Your task to perform on an android device: Open calendar and show me the first week of next month Image 0: 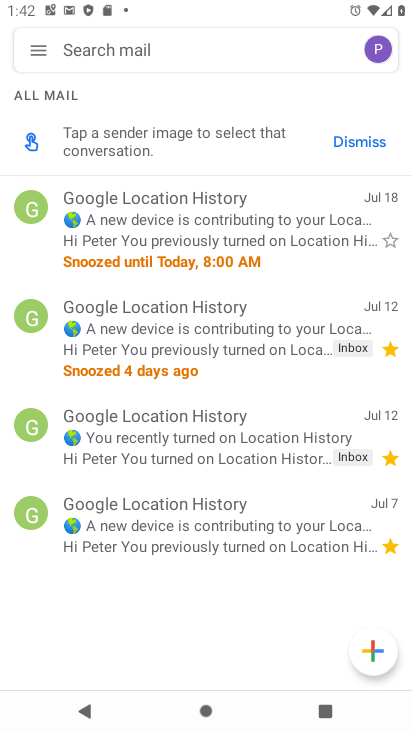
Step 0: press home button
Your task to perform on an android device: Open calendar and show me the first week of next month Image 1: 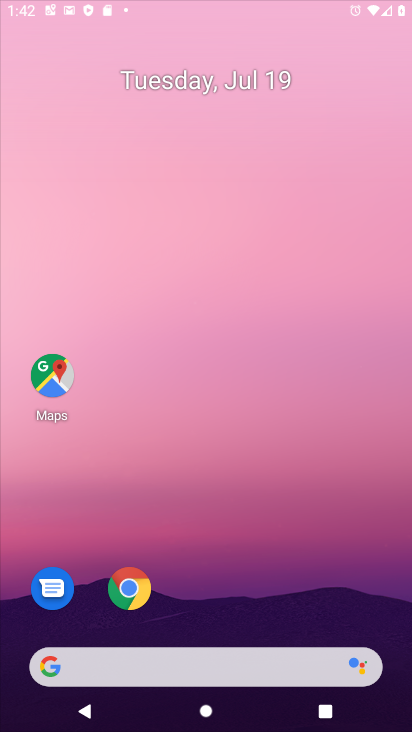
Step 1: drag from (347, 646) to (261, 162)
Your task to perform on an android device: Open calendar and show me the first week of next month Image 2: 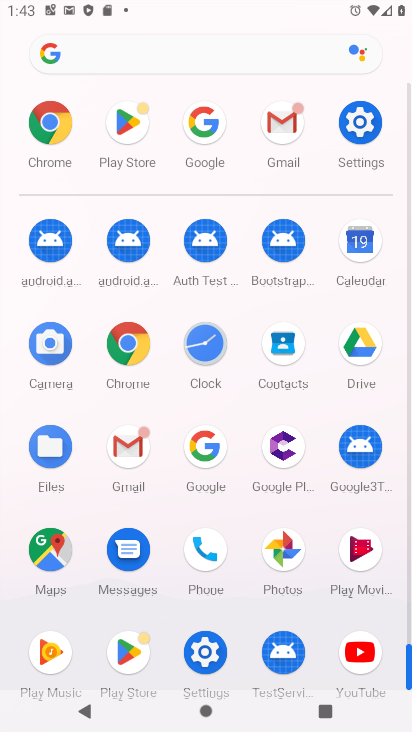
Step 2: click (360, 226)
Your task to perform on an android device: Open calendar and show me the first week of next month Image 3: 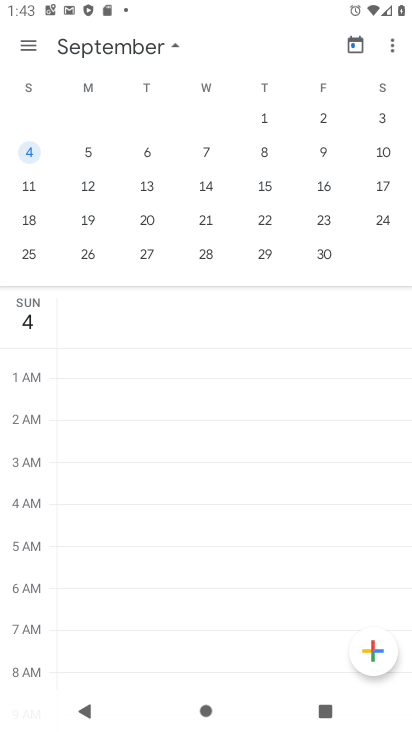
Step 3: drag from (382, 135) to (137, 146)
Your task to perform on an android device: Open calendar and show me the first week of next month Image 4: 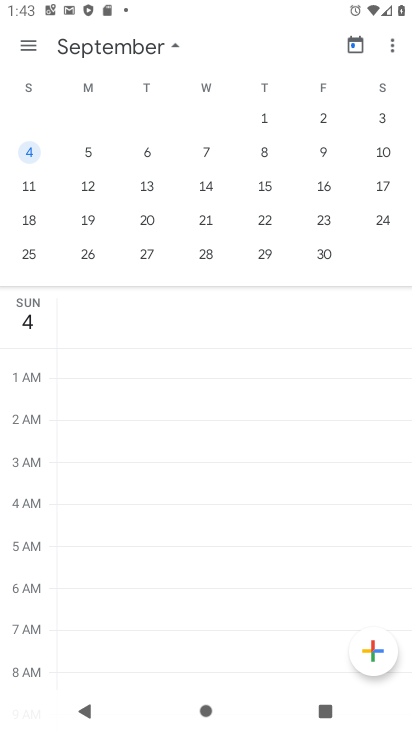
Step 4: drag from (332, 178) to (27, 170)
Your task to perform on an android device: Open calendar and show me the first week of next month Image 5: 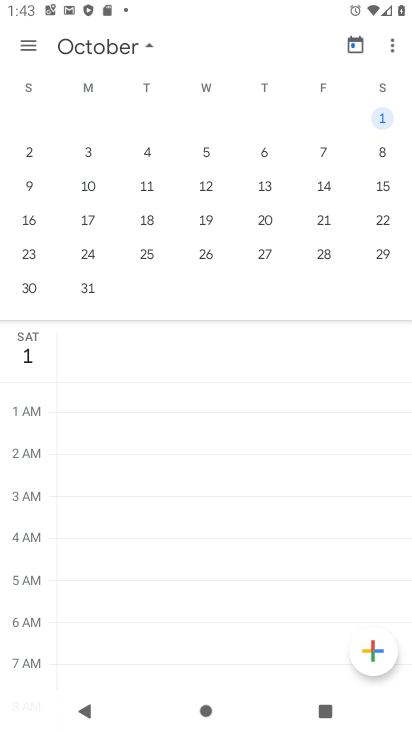
Step 5: click (32, 154)
Your task to perform on an android device: Open calendar and show me the first week of next month Image 6: 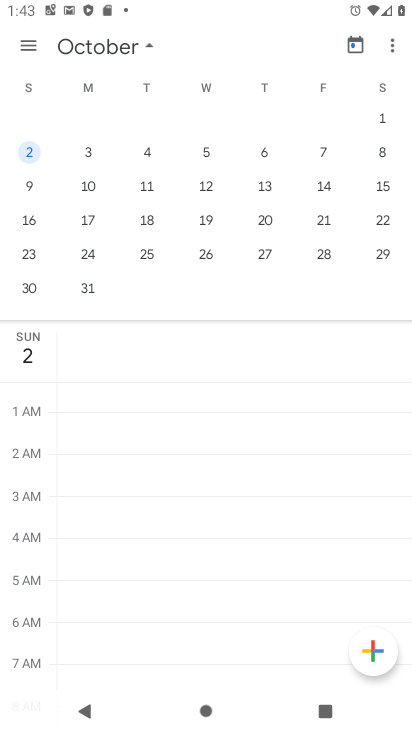
Step 6: task complete